Your task to perform on an android device: Set the phone to "Do not disturb". Image 0: 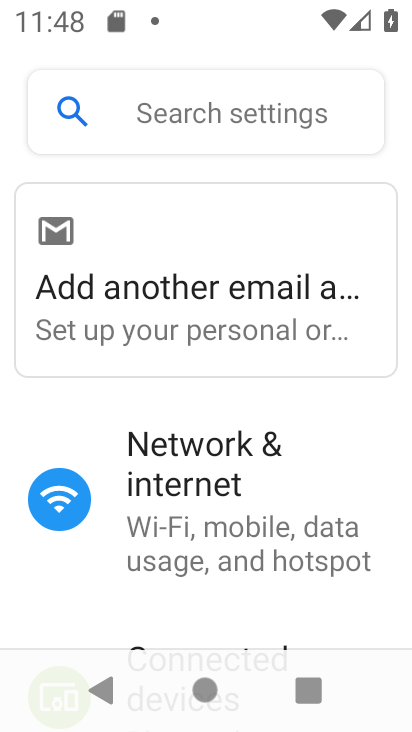
Step 0: press home button
Your task to perform on an android device: Set the phone to "Do not disturb". Image 1: 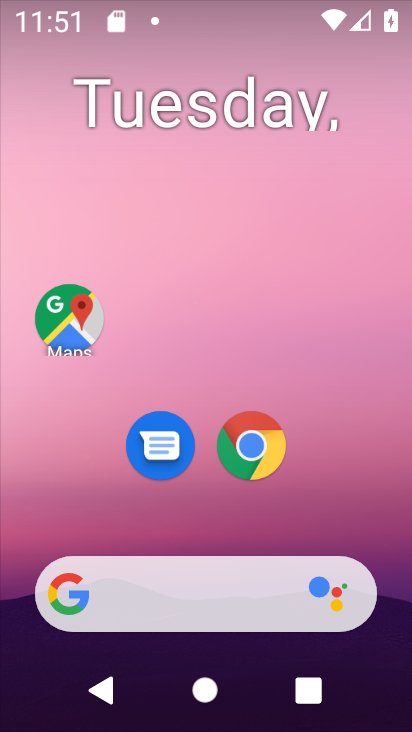
Step 1: drag from (219, 2) to (274, 595)
Your task to perform on an android device: Set the phone to "Do not disturb". Image 2: 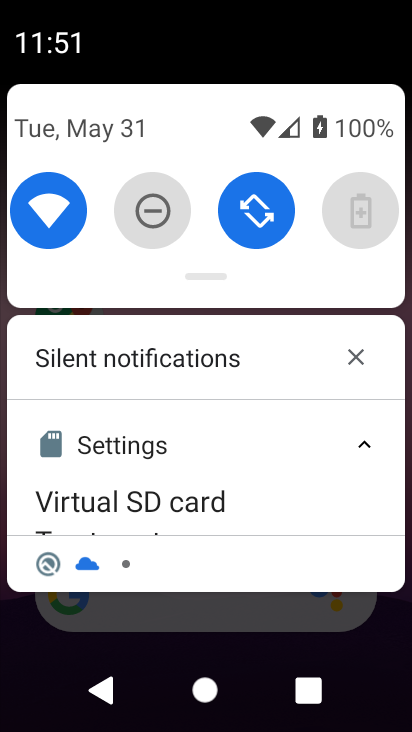
Step 2: click (148, 200)
Your task to perform on an android device: Set the phone to "Do not disturb". Image 3: 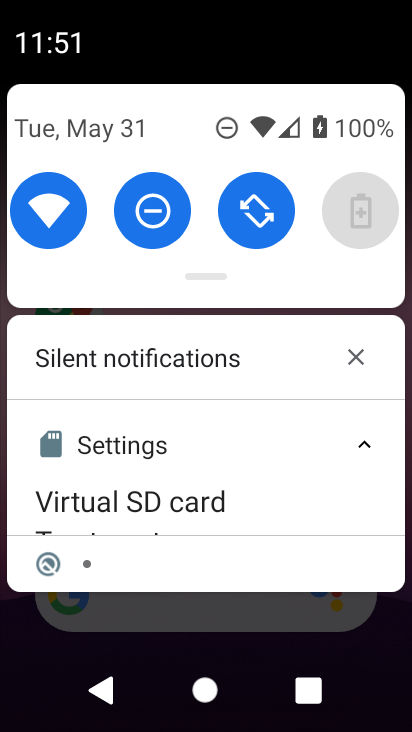
Step 3: task complete